Your task to perform on an android device: turn notification dots off Image 0: 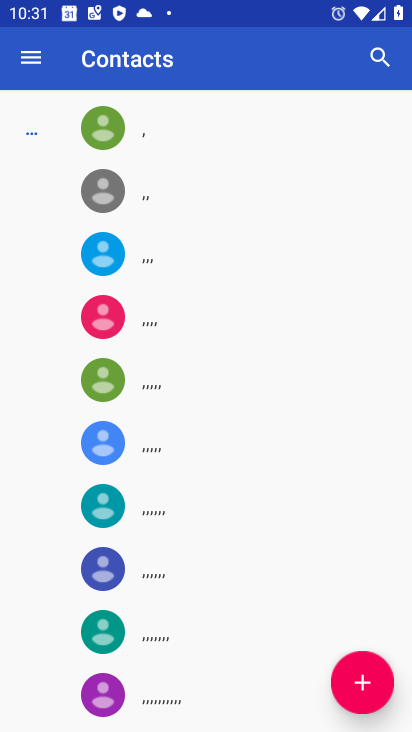
Step 0: press home button
Your task to perform on an android device: turn notification dots off Image 1: 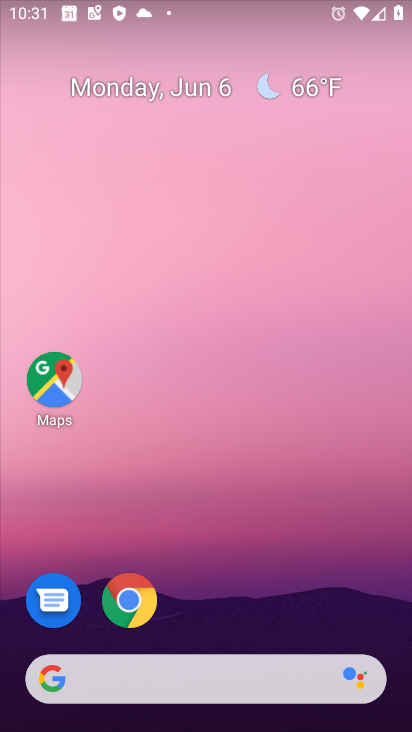
Step 1: drag from (30, 587) to (338, 61)
Your task to perform on an android device: turn notification dots off Image 2: 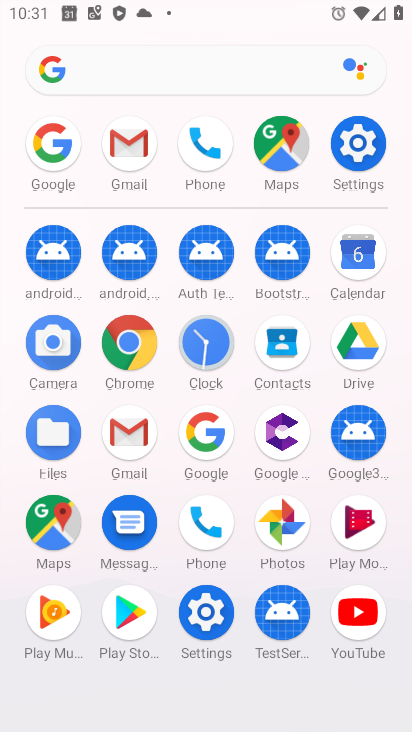
Step 2: click (359, 140)
Your task to perform on an android device: turn notification dots off Image 3: 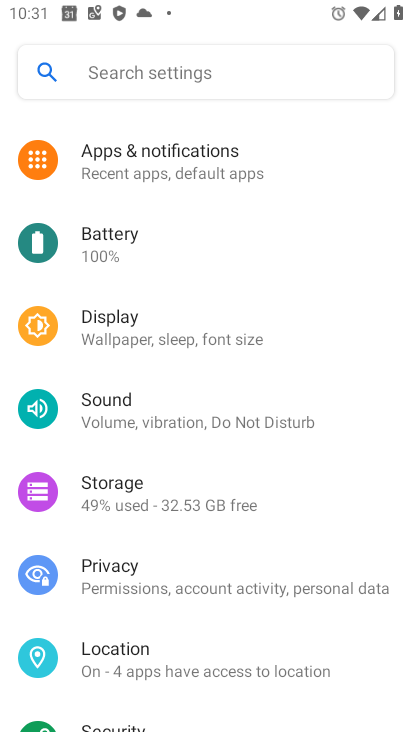
Step 3: click (260, 163)
Your task to perform on an android device: turn notification dots off Image 4: 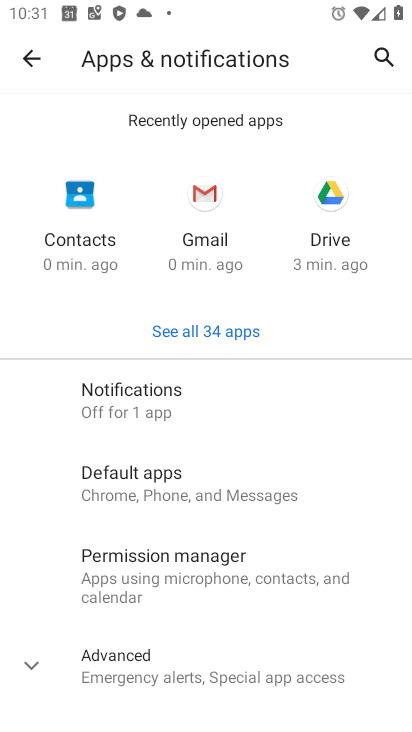
Step 4: click (151, 405)
Your task to perform on an android device: turn notification dots off Image 5: 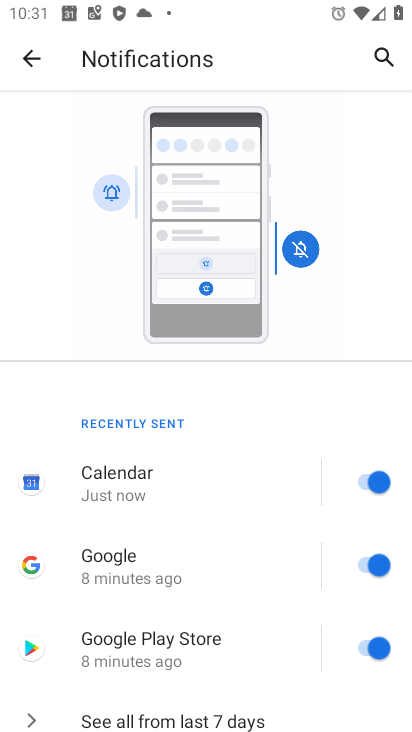
Step 5: drag from (61, 661) to (228, 327)
Your task to perform on an android device: turn notification dots off Image 6: 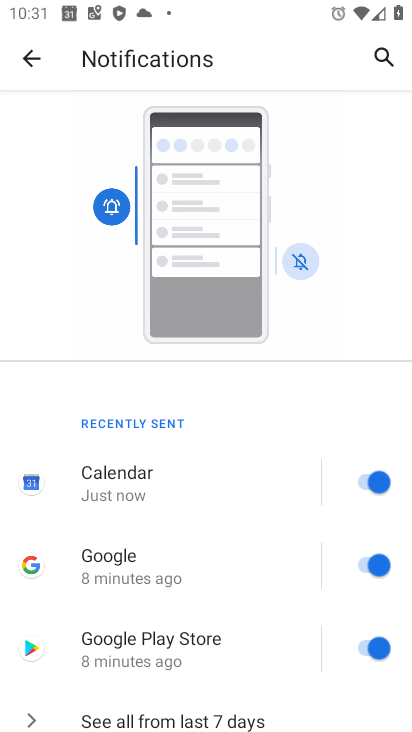
Step 6: drag from (49, 569) to (197, 180)
Your task to perform on an android device: turn notification dots off Image 7: 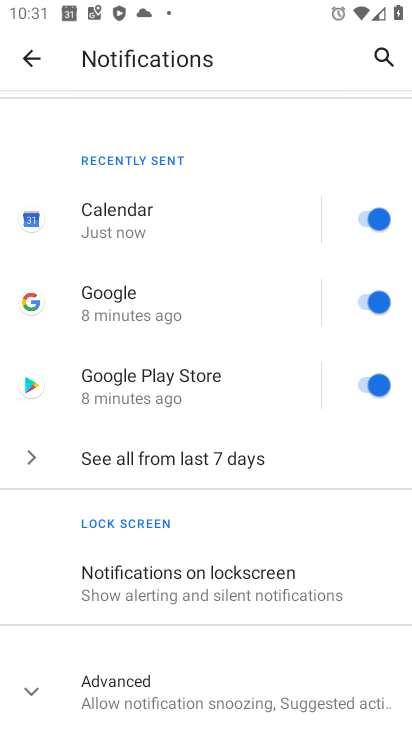
Step 7: click (130, 702)
Your task to perform on an android device: turn notification dots off Image 8: 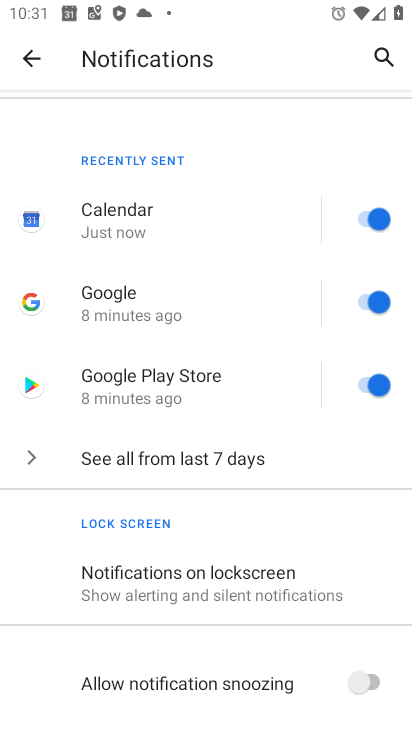
Step 8: task complete